Your task to perform on an android device: Open display settings Image 0: 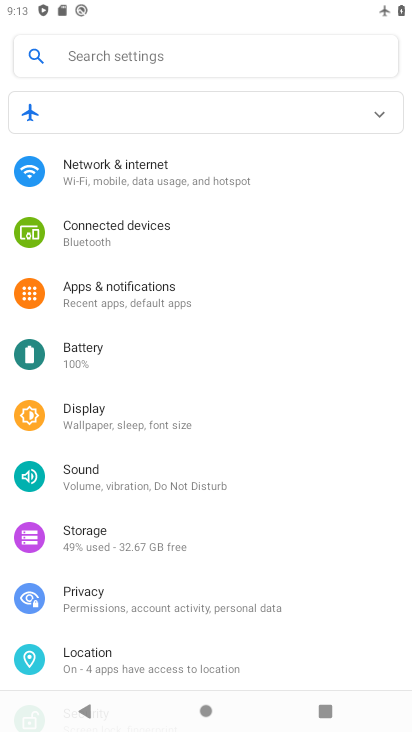
Step 0: click (91, 416)
Your task to perform on an android device: Open display settings Image 1: 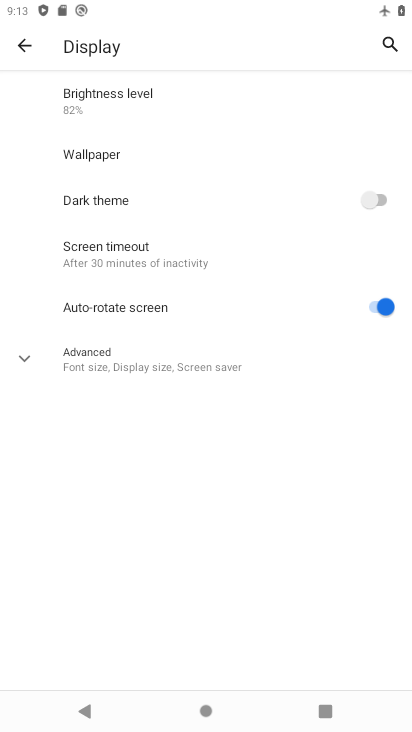
Step 1: task complete